Your task to perform on an android device: turn off notifications settings in the gmail app Image 0: 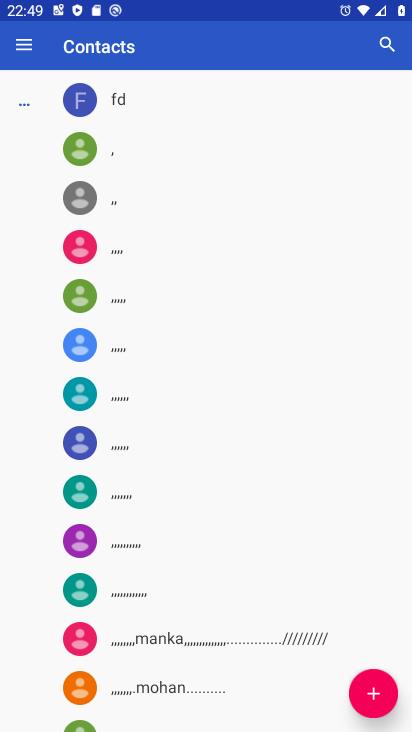
Step 0: press home button
Your task to perform on an android device: turn off notifications settings in the gmail app Image 1: 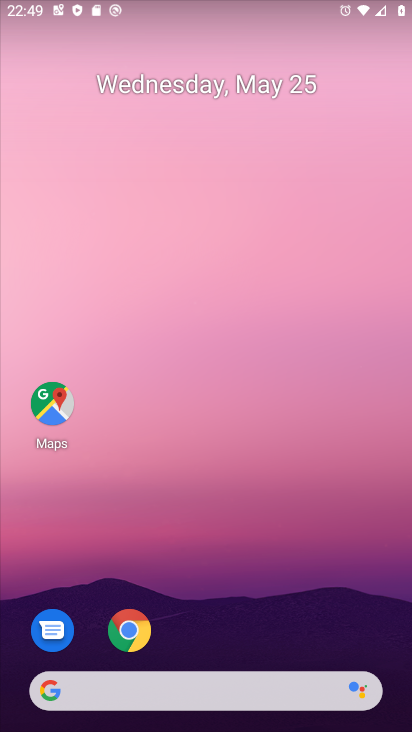
Step 1: drag from (188, 649) to (209, 194)
Your task to perform on an android device: turn off notifications settings in the gmail app Image 2: 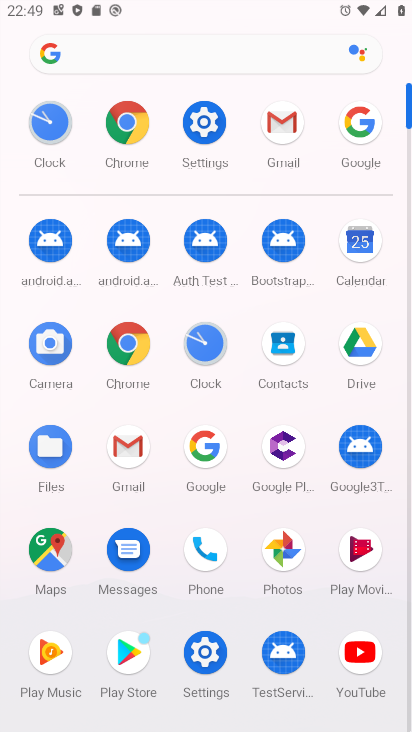
Step 2: click (272, 138)
Your task to perform on an android device: turn off notifications settings in the gmail app Image 3: 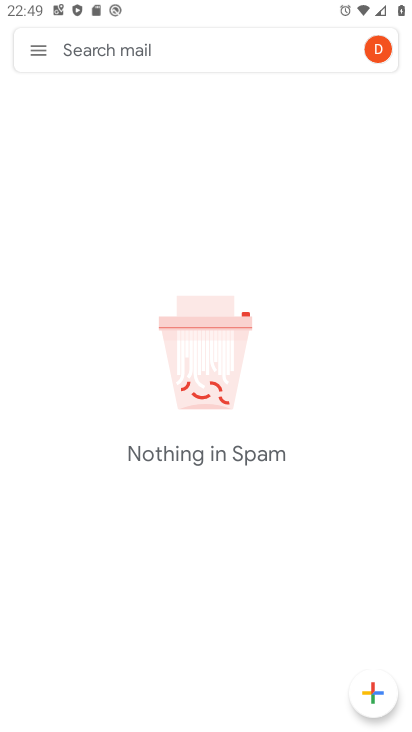
Step 3: click (43, 44)
Your task to perform on an android device: turn off notifications settings in the gmail app Image 4: 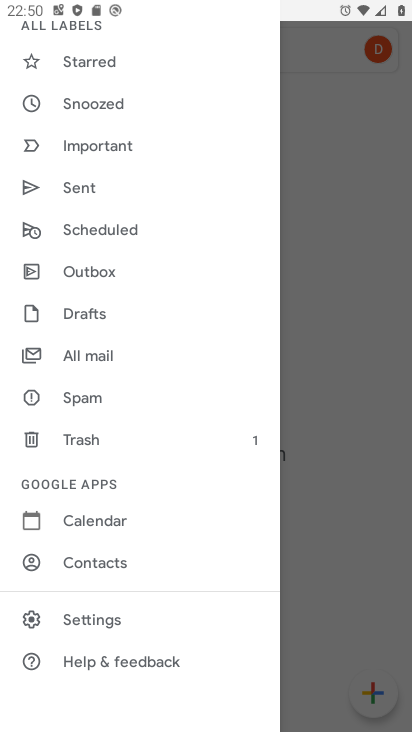
Step 4: click (152, 622)
Your task to perform on an android device: turn off notifications settings in the gmail app Image 5: 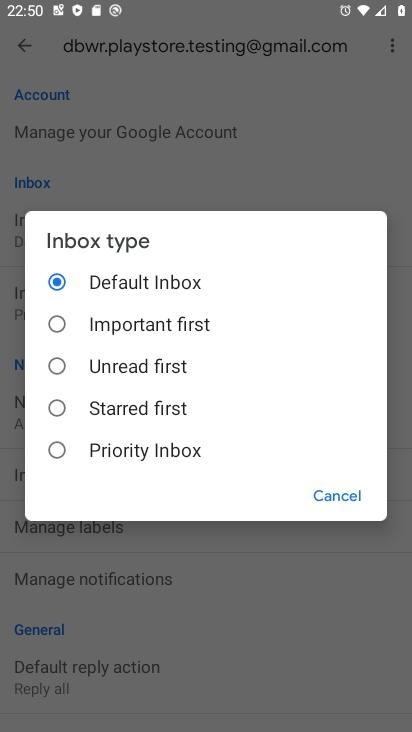
Step 5: click (327, 484)
Your task to perform on an android device: turn off notifications settings in the gmail app Image 6: 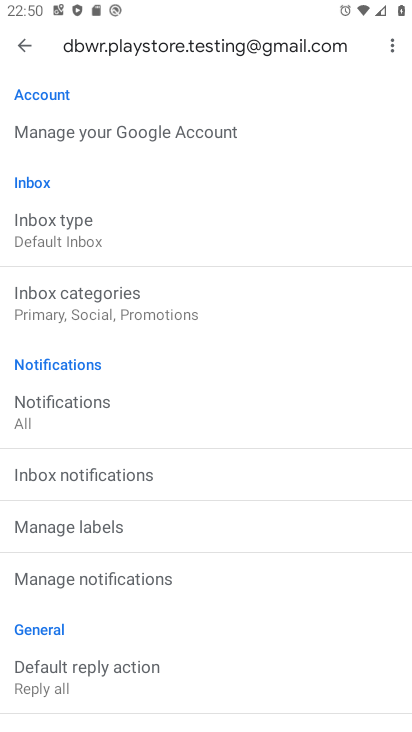
Step 6: click (157, 561)
Your task to perform on an android device: turn off notifications settings in the gmail app Image 7: 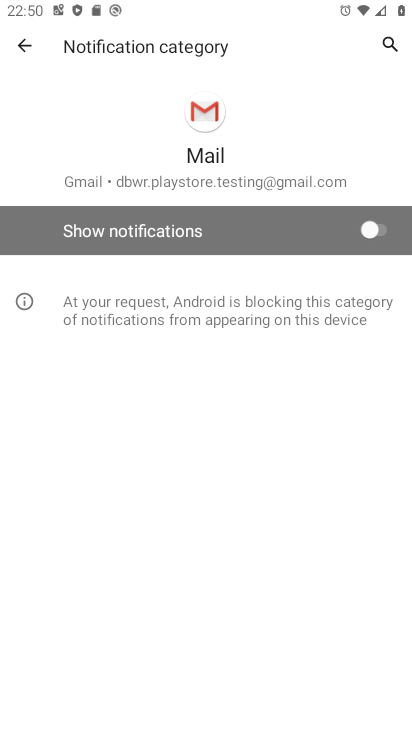
Step 7: task complete